Your task to perform on an android device: delete browsing data in the chrome app Image 0: 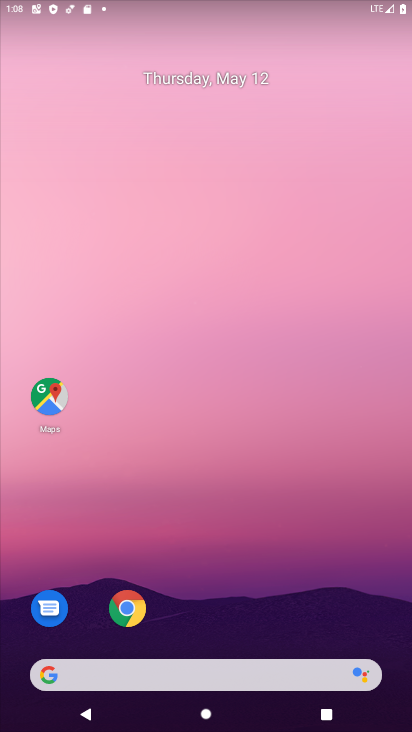
Step 0: click (274, 555)
Your task to perform on an android device: delete browsing data in the chrome app Image 1: 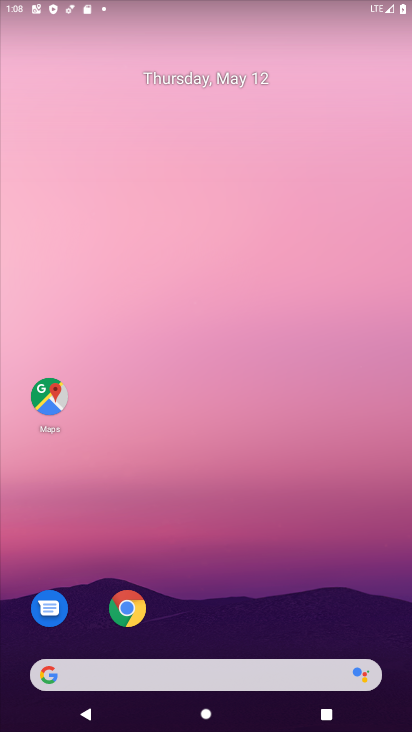
Step 1: click (128, 613)
Your task to perform on an android device: delete browsing data in the chrome app Image 2: 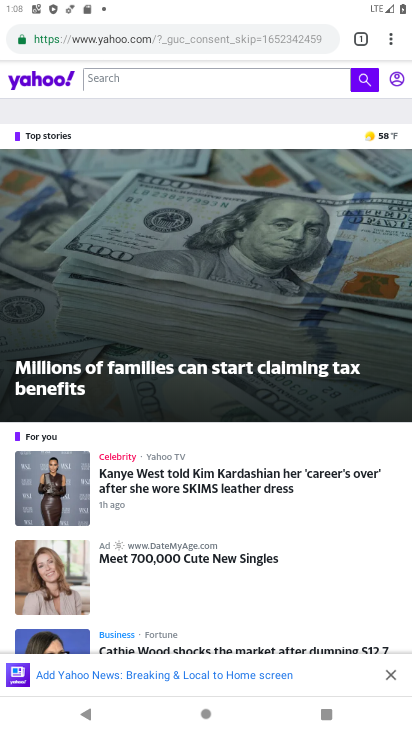
Step 2: click (391, 38)
Your task to perform on an android device: delete browsing data in the chrome app Image 3: 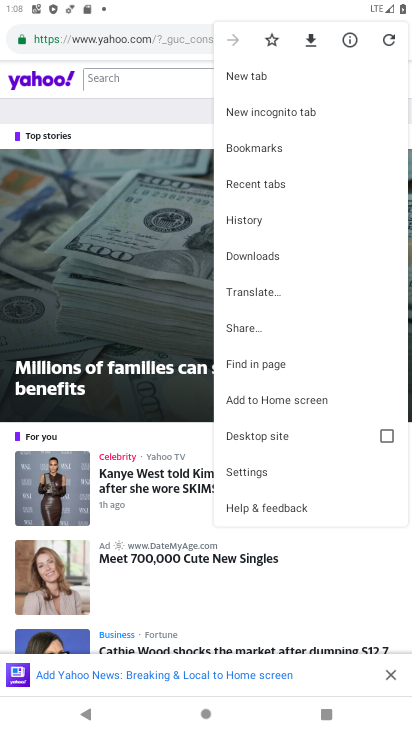
Step 3: click (257, 475)
Your task to perform on an android device: delete browsing data in the chrome app Image 4: 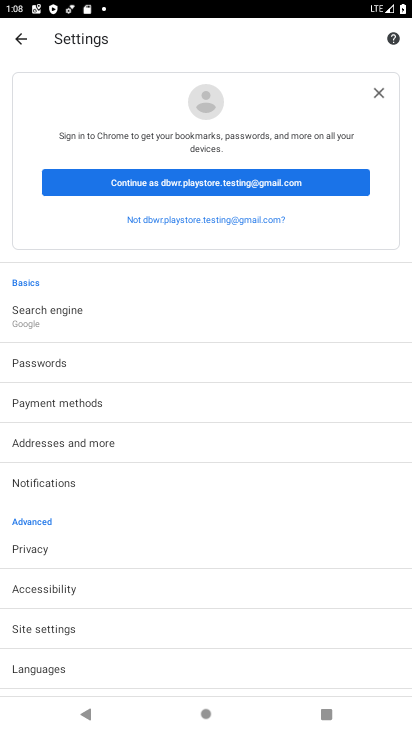
Step 4: click (47, 544)
Your task to perform on an android device: delete browsing data in the chrome app Image 5: 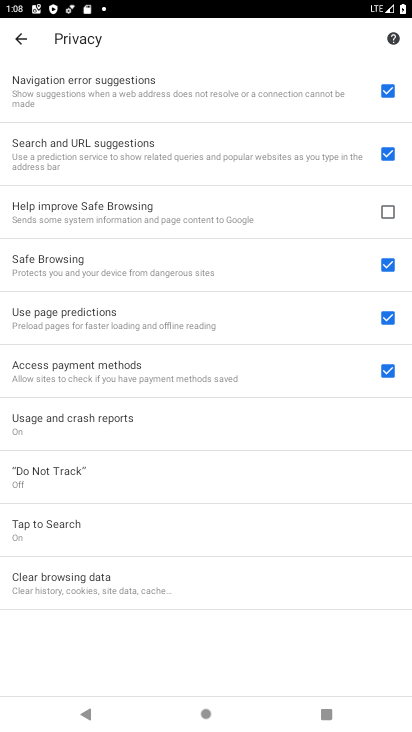
Step 5: click (43, 584)
Your task to perform on an android device: delete browsing data in the chrome app Image 6: 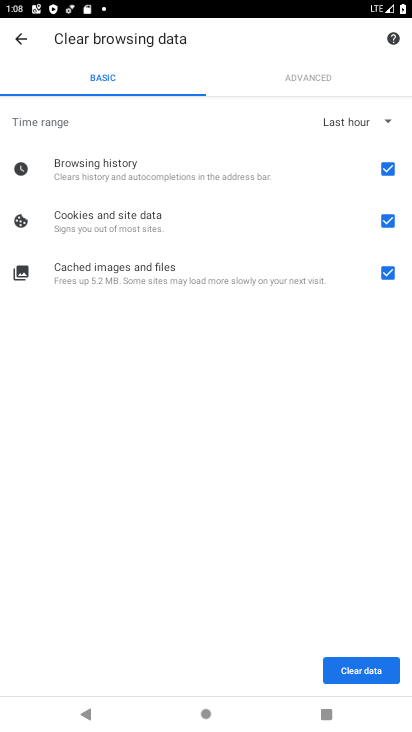
Step 6: click (390, 224)
Your task to perform on an android device: delete browsing data in the chrome app Image 7: 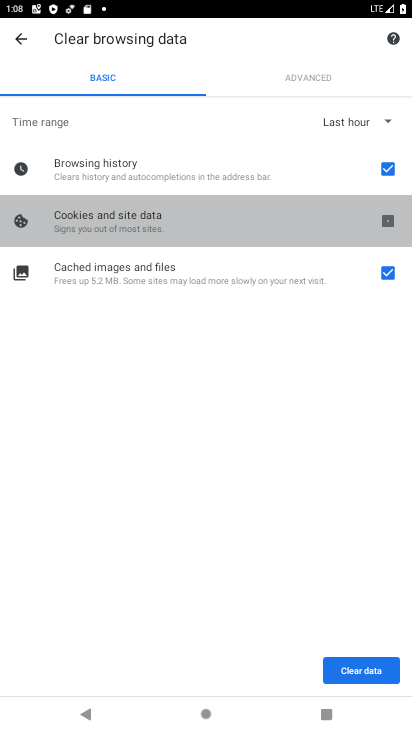
Step 7: click (391, 271)
Your task to perform on an android device: delete browsing data in the chrome app Image 8: 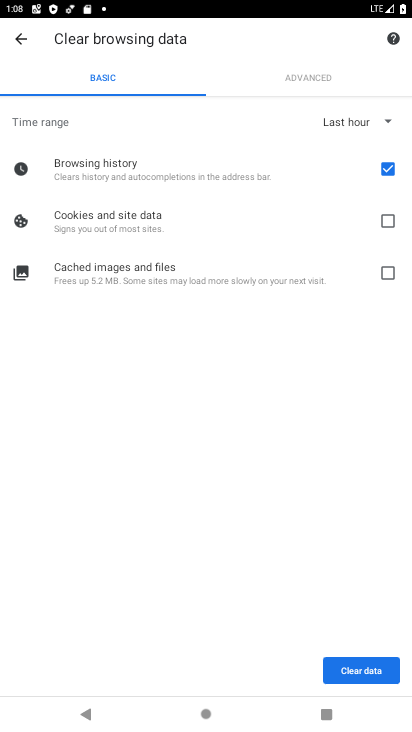
Step 8: click (363, 670)
Your task to perform on an android device: delete browsing data in the chrome app Image 9: 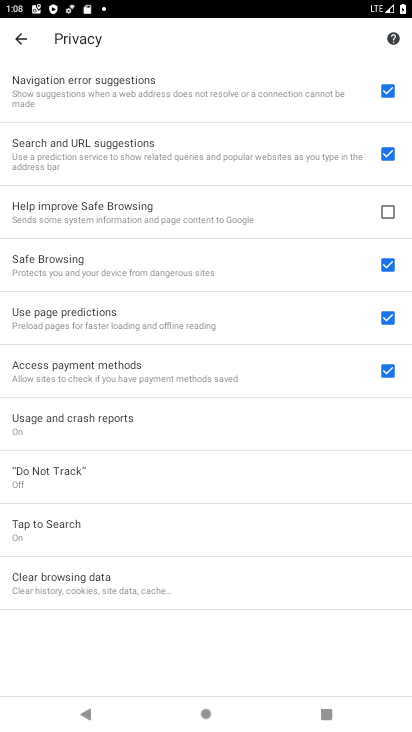
Step 9: task complete